Your task to perform on an android device: Clear all items from cart on ebay. Search for "macbook" on ebay, select the first entry, and add it to the cart. Image 0: 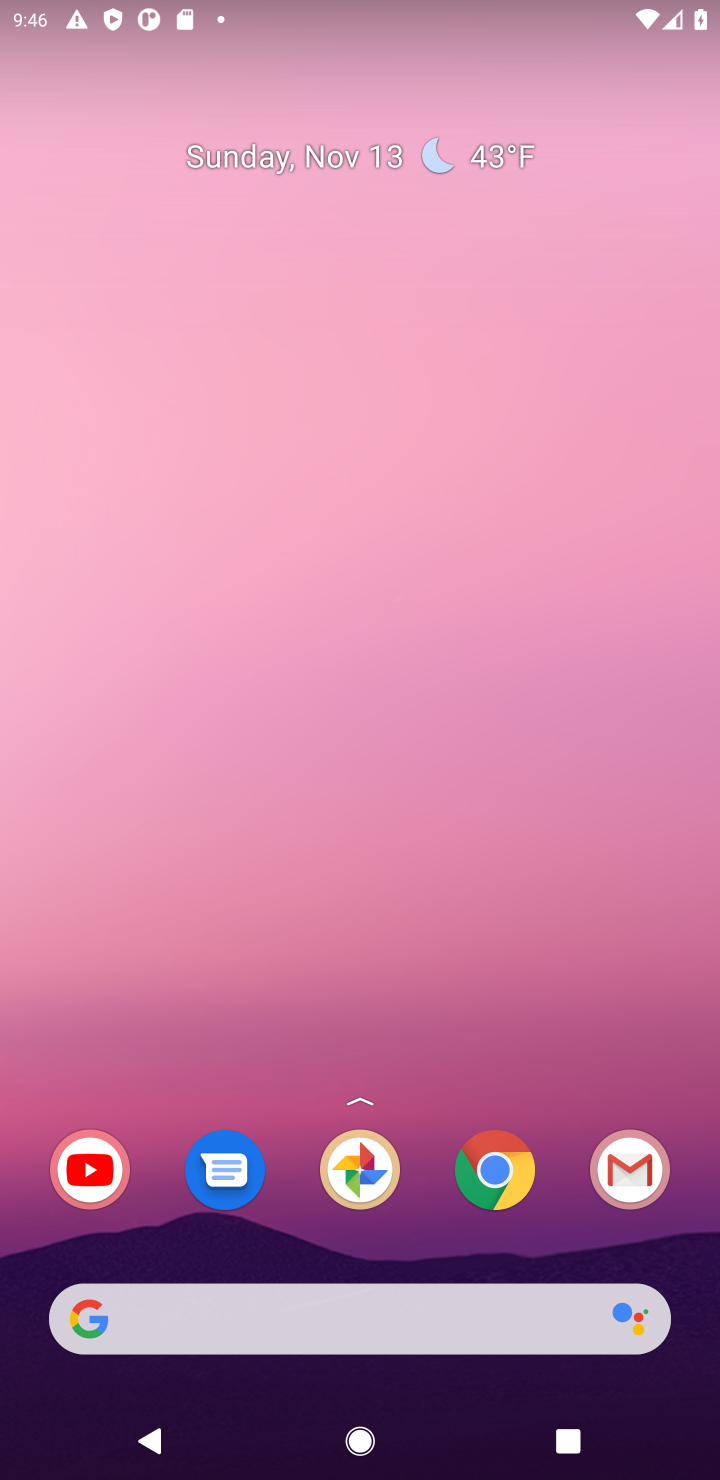
Step 0: drag from (213, 1053) to (282, 1)
Your task to perform on an android device: Clear all items from cart on ebay. Search for "macbook" on ebay, select the first entry, and add it to the cart. Image 1: 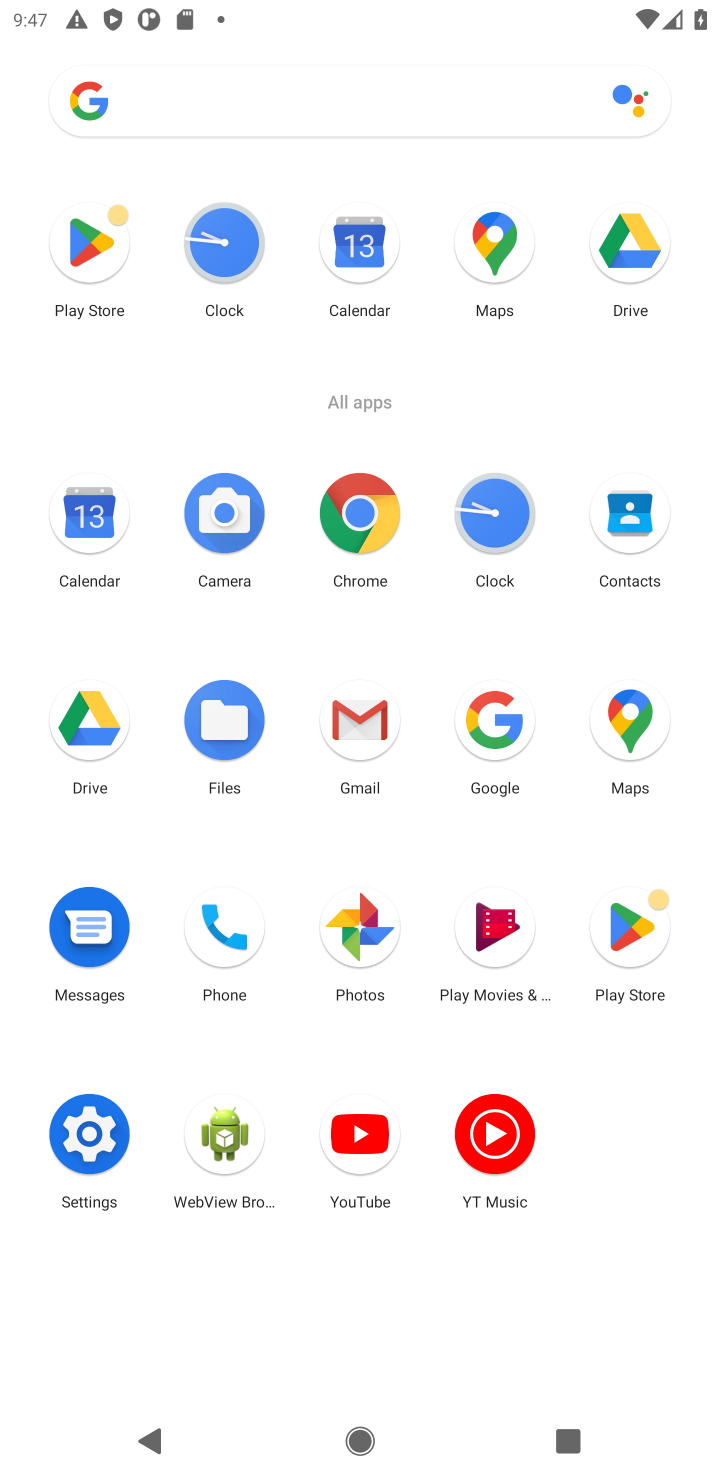
Step 1: click (345, 533)
Your task to perform on an android device: Clear all items from cart on ebay. Search for "macbook" on ebay, select the first entry, and add it to the cart. Image 2: 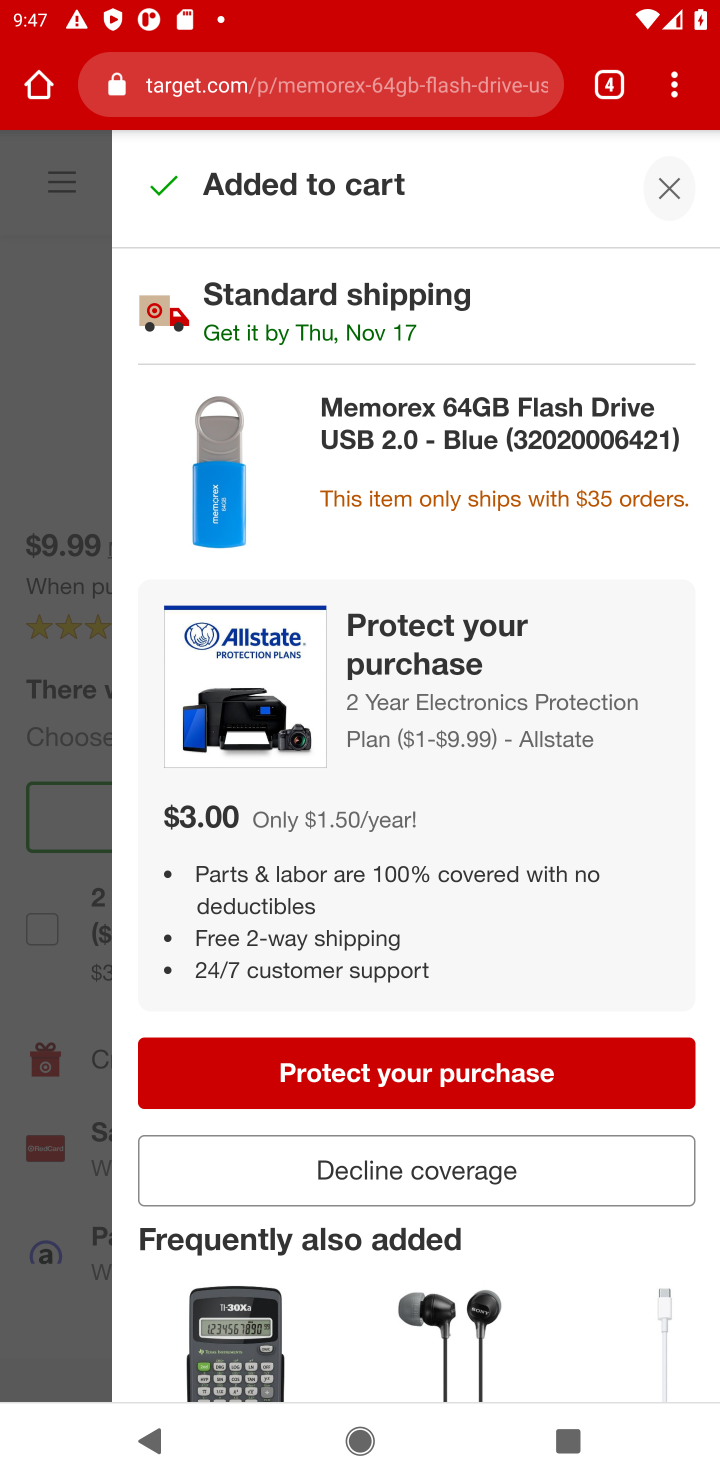
Step 2: press home button
Your task to perform on an android device: Clear all items from cart on ebay. Search for "macbook" on ebay, select the first entry, and add it to the cart. Image 3: 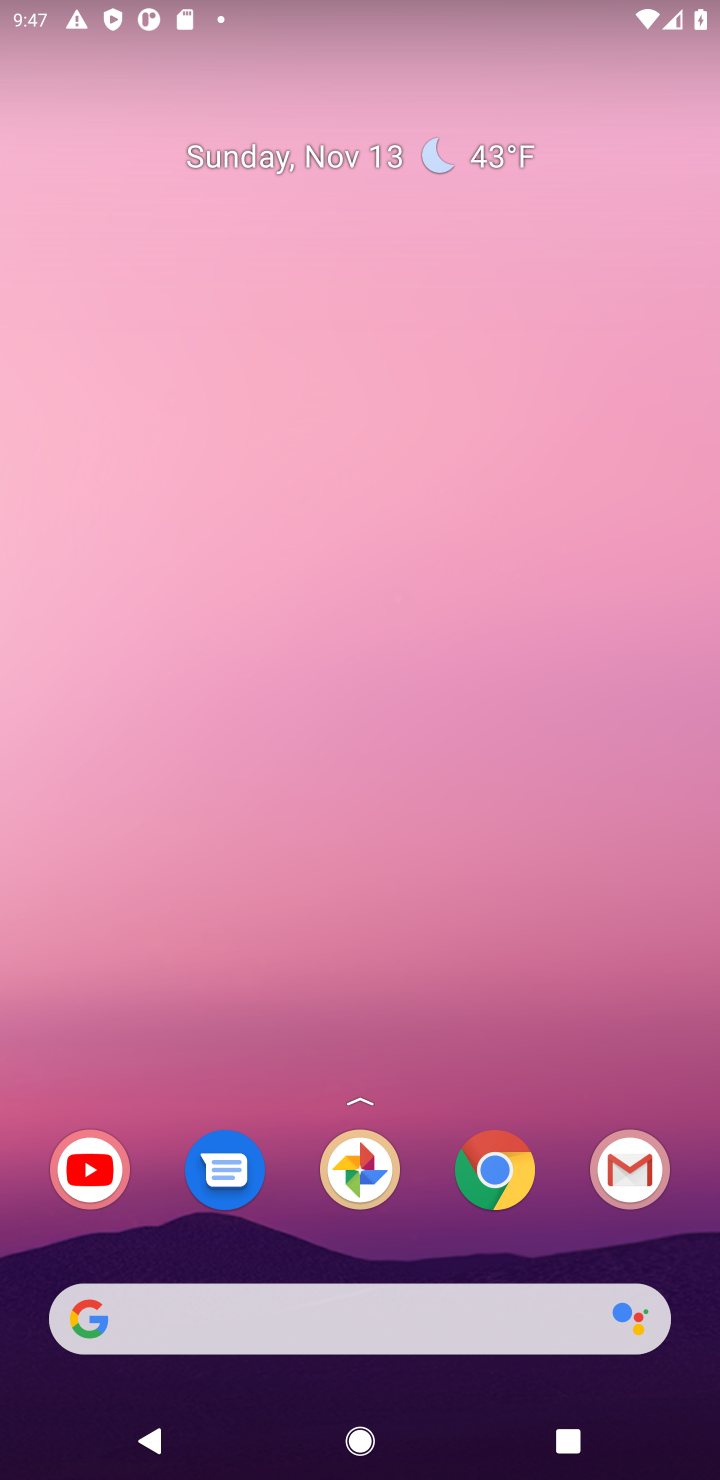
Step 3: drag from (378, 1133) to (254, 17)
Your task to perform on an android device: Clear all items from cart on ebay. Search for "macbook" on ebay, select the first entry, and add it to the cart. Image 4: 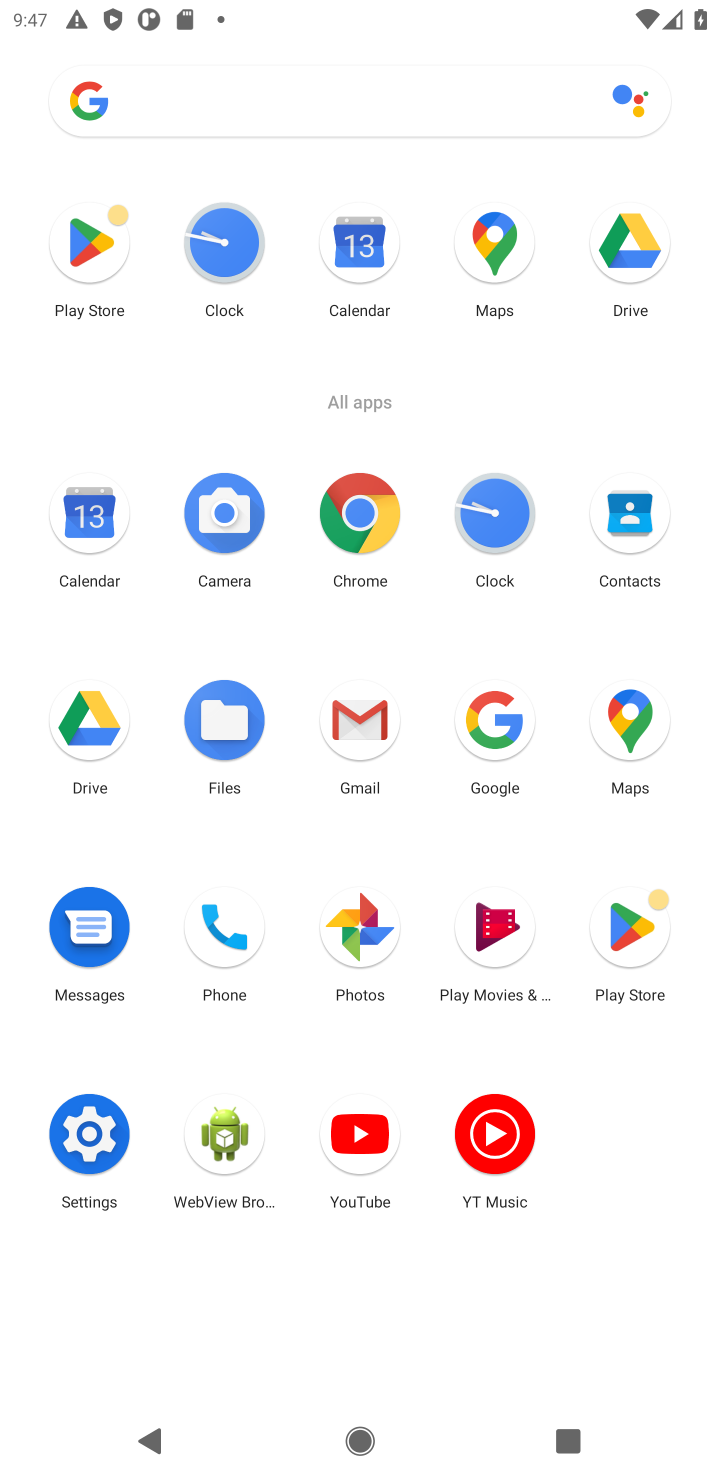
Step 4: click (351, 514)
Your task to perform on an android device: Clear all items from cart on ebay. Search for "macbook" on ebay, select the first entry, and add it to the cart. Image 5: 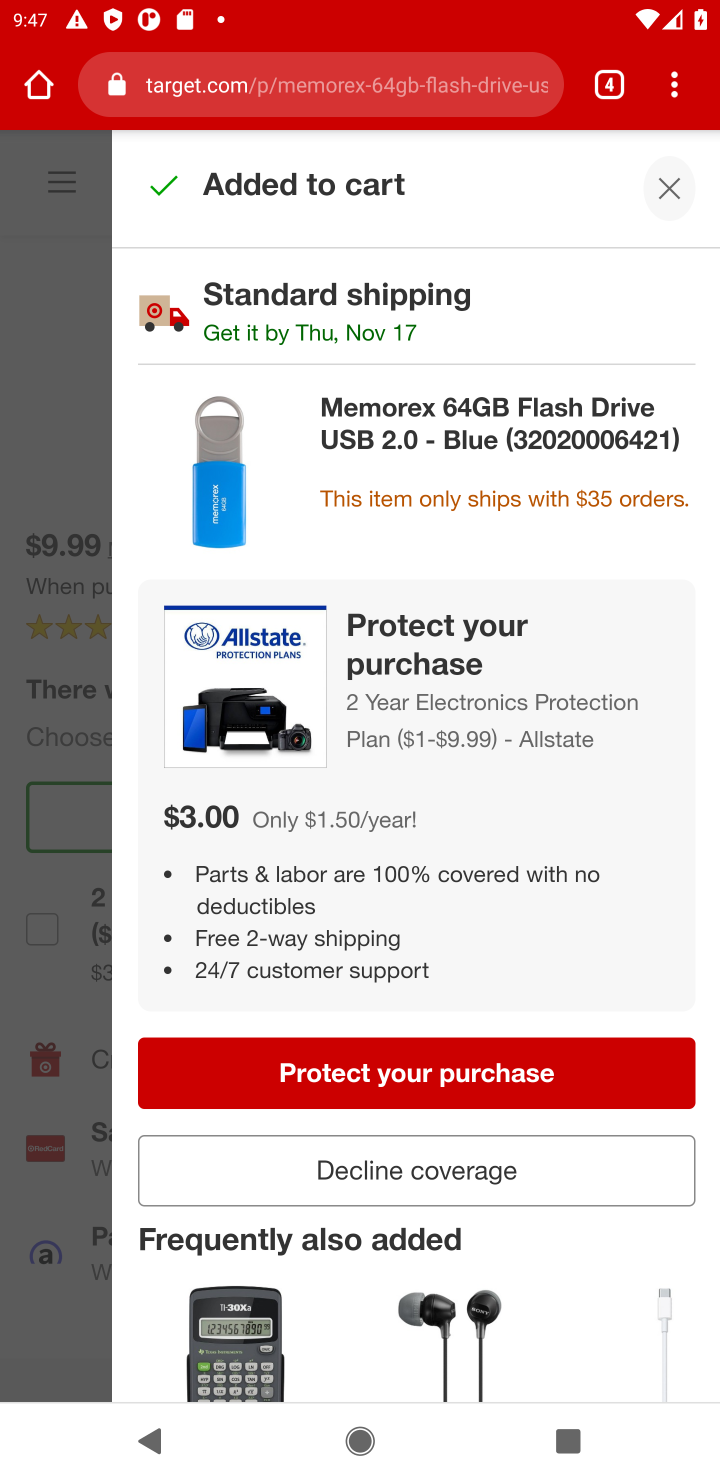
Step 5: click (332, 81)
Your task to perform on an android device: Clear all items from cart on ebay. Search for "macbook" on ebay, select the first entry, and add it to the cart. Image 6: 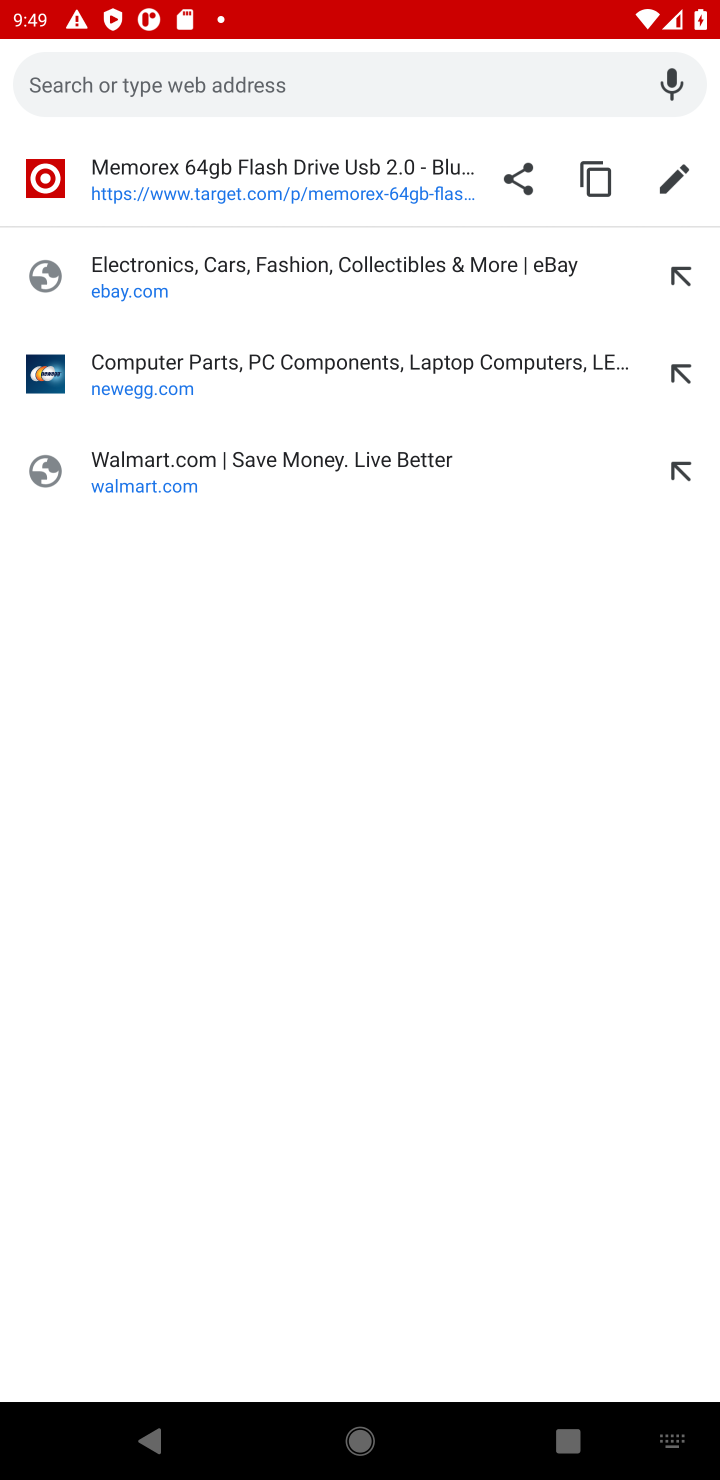
Step 6: type "ebay"
Your task to perform on an android device: Clear all items from cart on ebay. Search for "macbook" on ebay, select the first entry, and add it to the cart. Image 7: 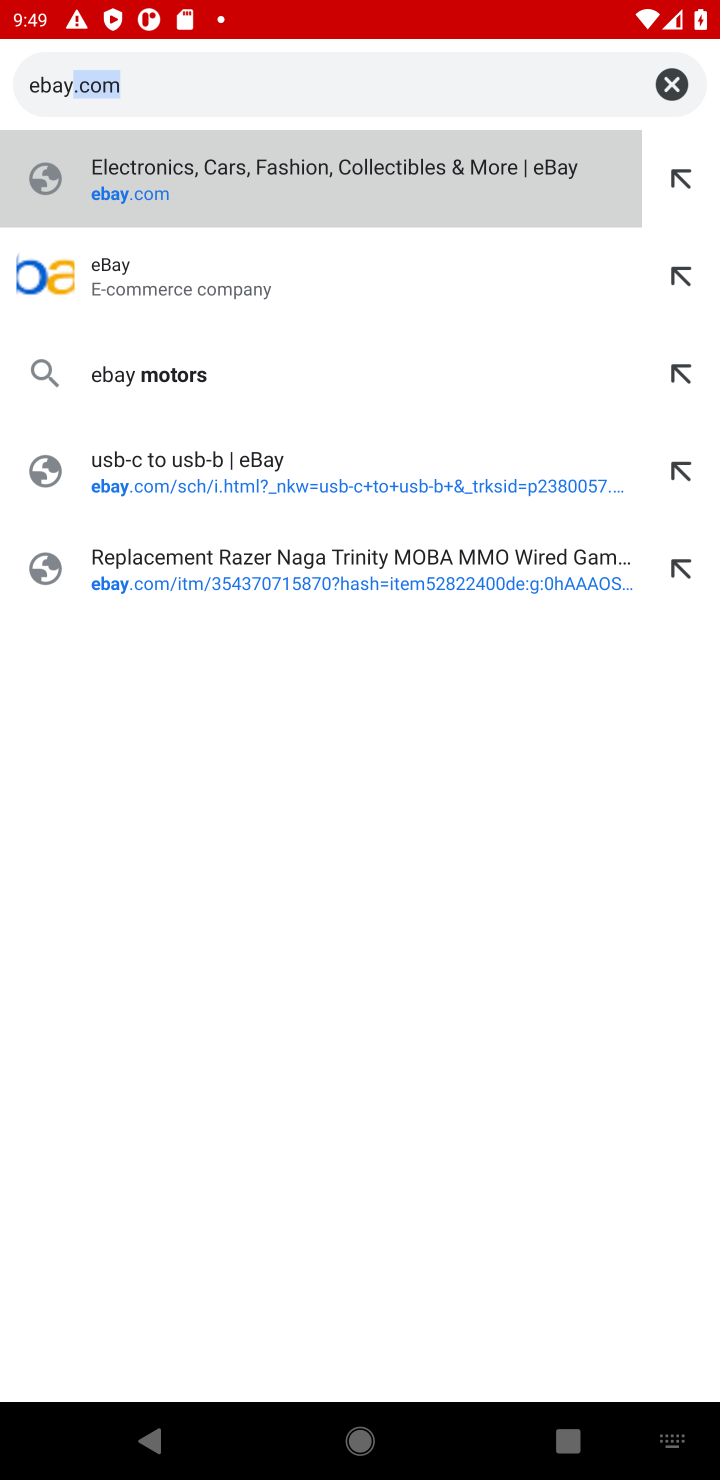
Step 7: press enter
Your task to perform on an android device: Clear all items from cart on ebay. Search for "macbook" on ebay, select the first entry, and add it to the cart. Image 8: 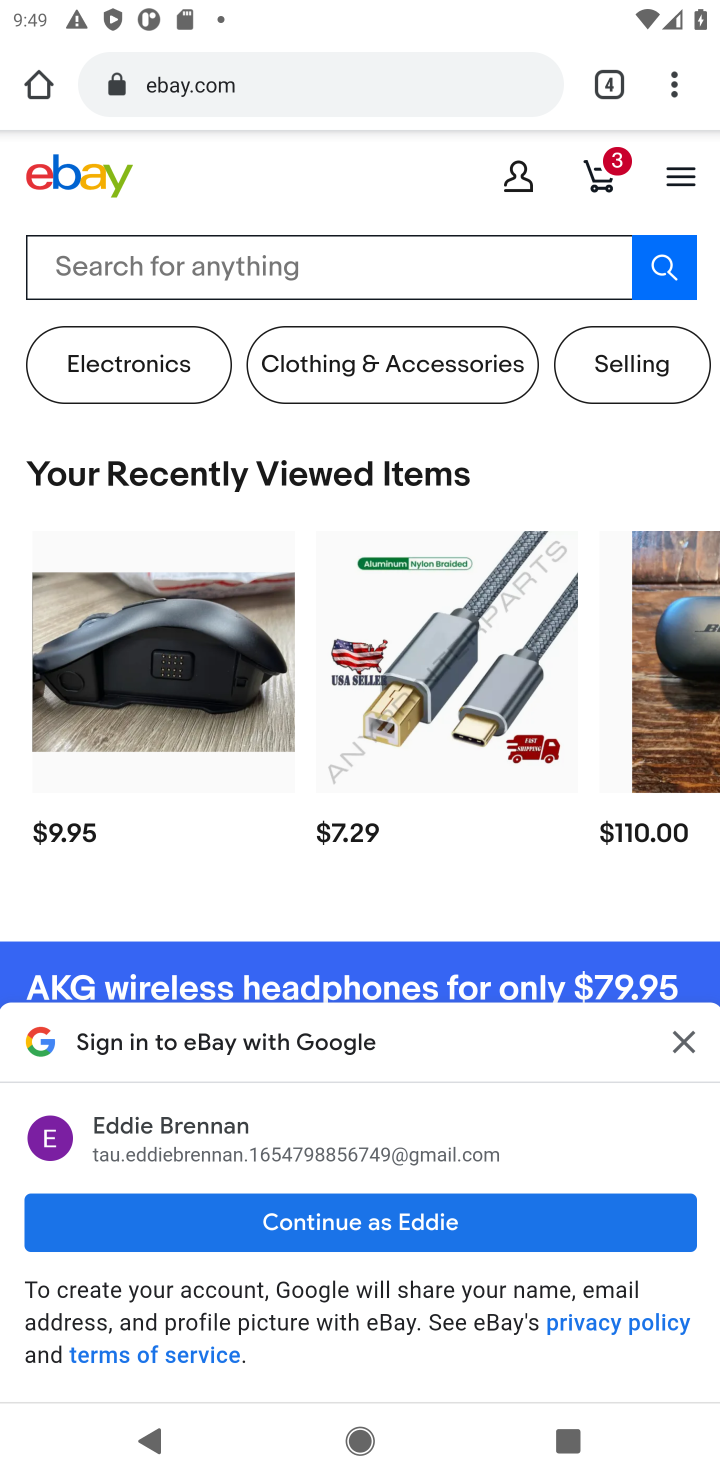
Step 8: click (173, 253)
Your task to perform on an android device: Clear all items from cart on ebay. Search for "macbook" on ebay, select the first entry, and add it to the cart. Image 9: 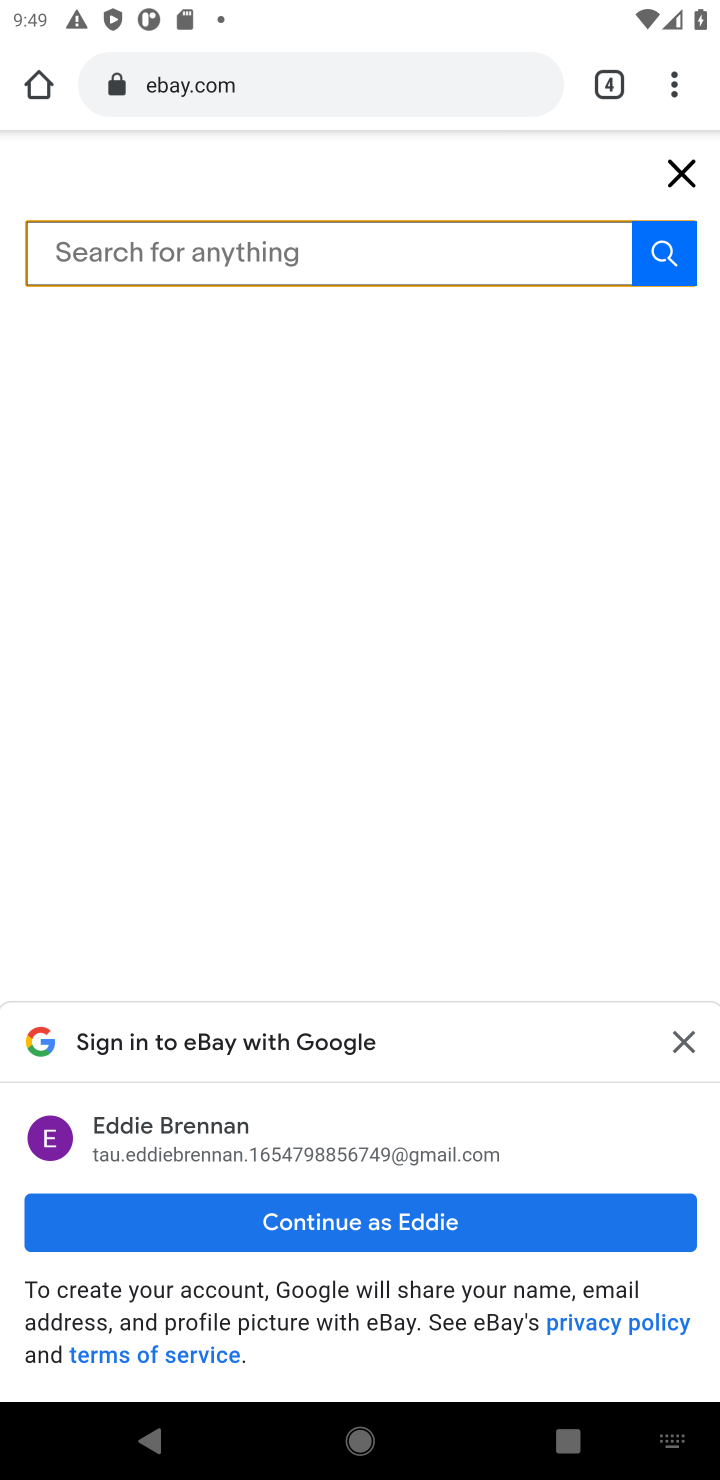
Step 9: press enter
Your task to perform on an android device: Clear all items from cart on ebay. Search for "macbook" on ebay, select the first entry, and add it to the cart. Image 10: 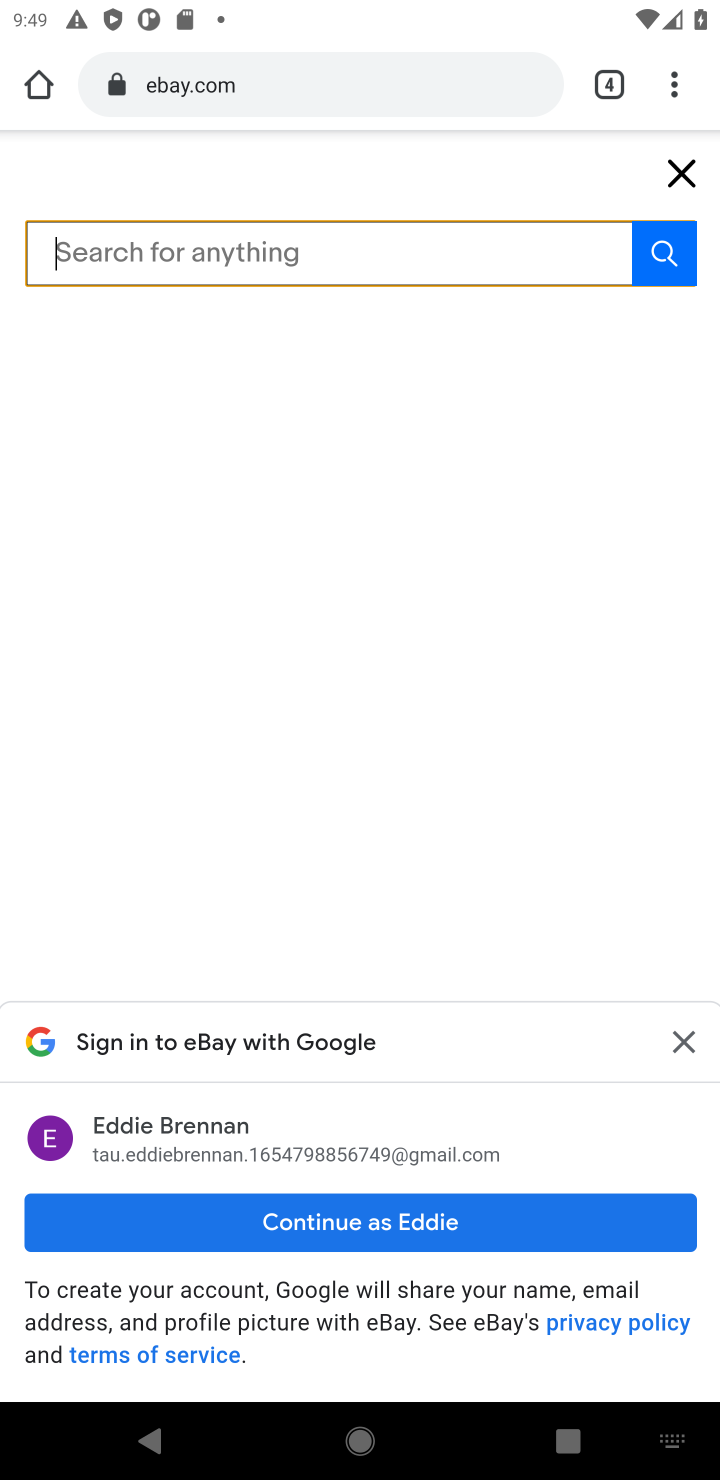
Step 10: type "macbook"
Your task to perform on an android device: Clear all items from cart on ebay. Search for "macbook" on ebay, select the first entry, and add it to the cart. Image 11: 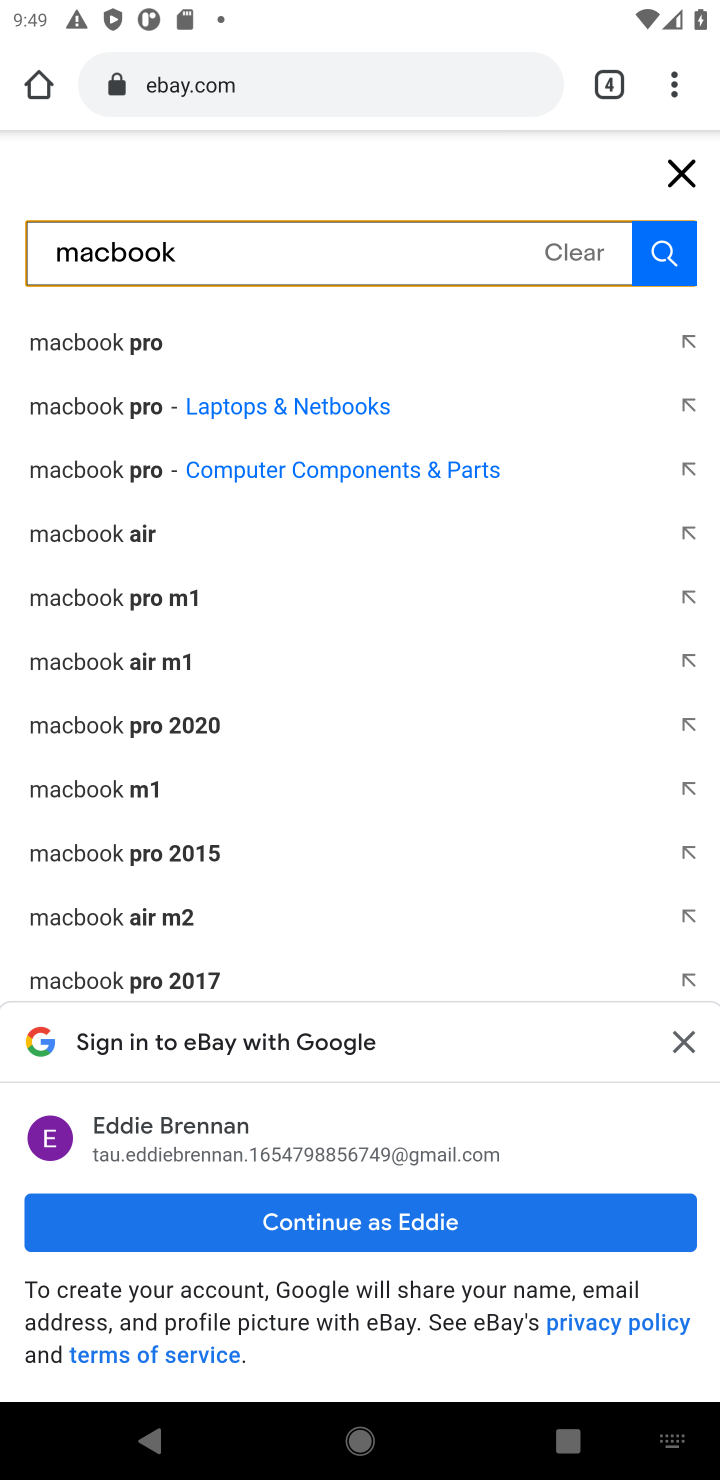
Step 11: press enter
Your task to perform on an android device: Clear all items from cart on ebay. Search for "macbook" on ebay, select the first entry, and add it to the cart. Image 12: 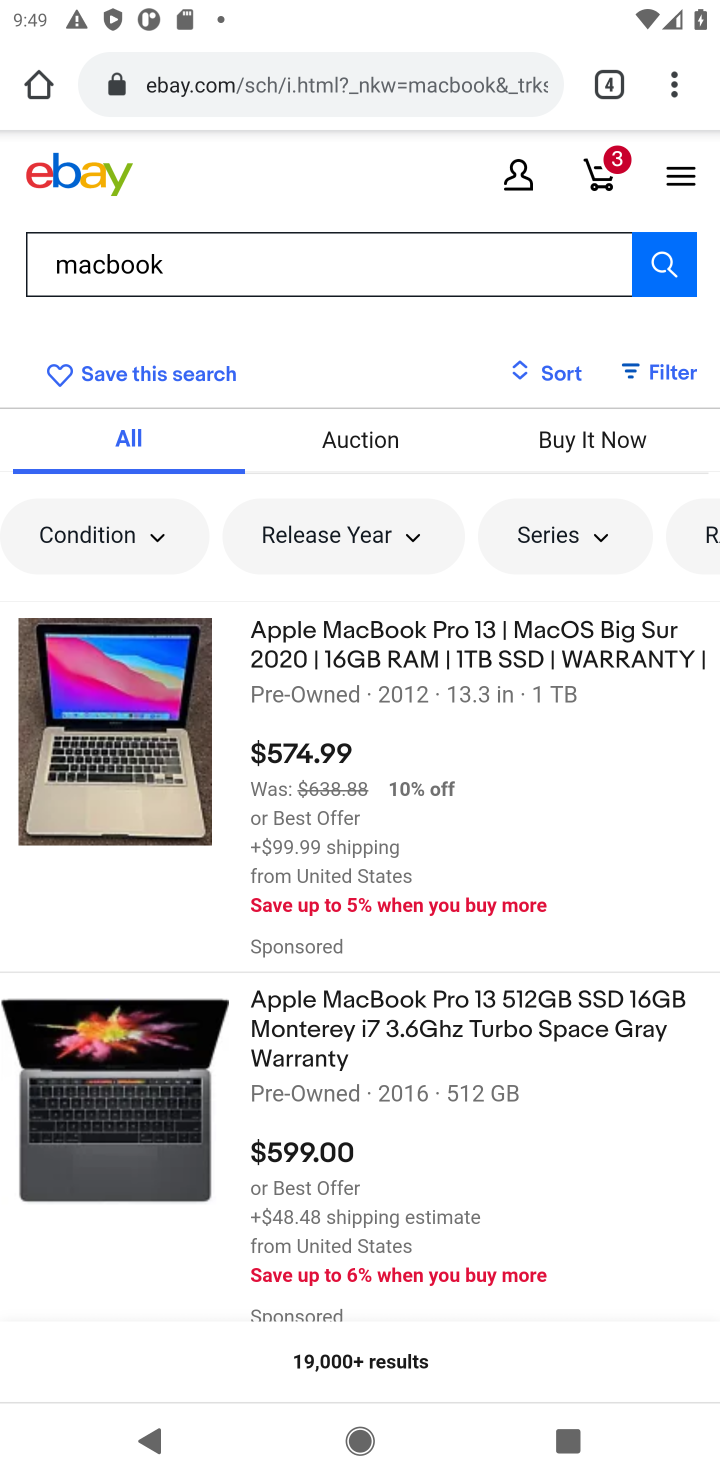
Step 12: click (297, 656)
Your task to perform on an android device: Clear all items from cart on ebay. Search for "macbook" on ebay, select the first entry, and add it to the cart. Image 13: 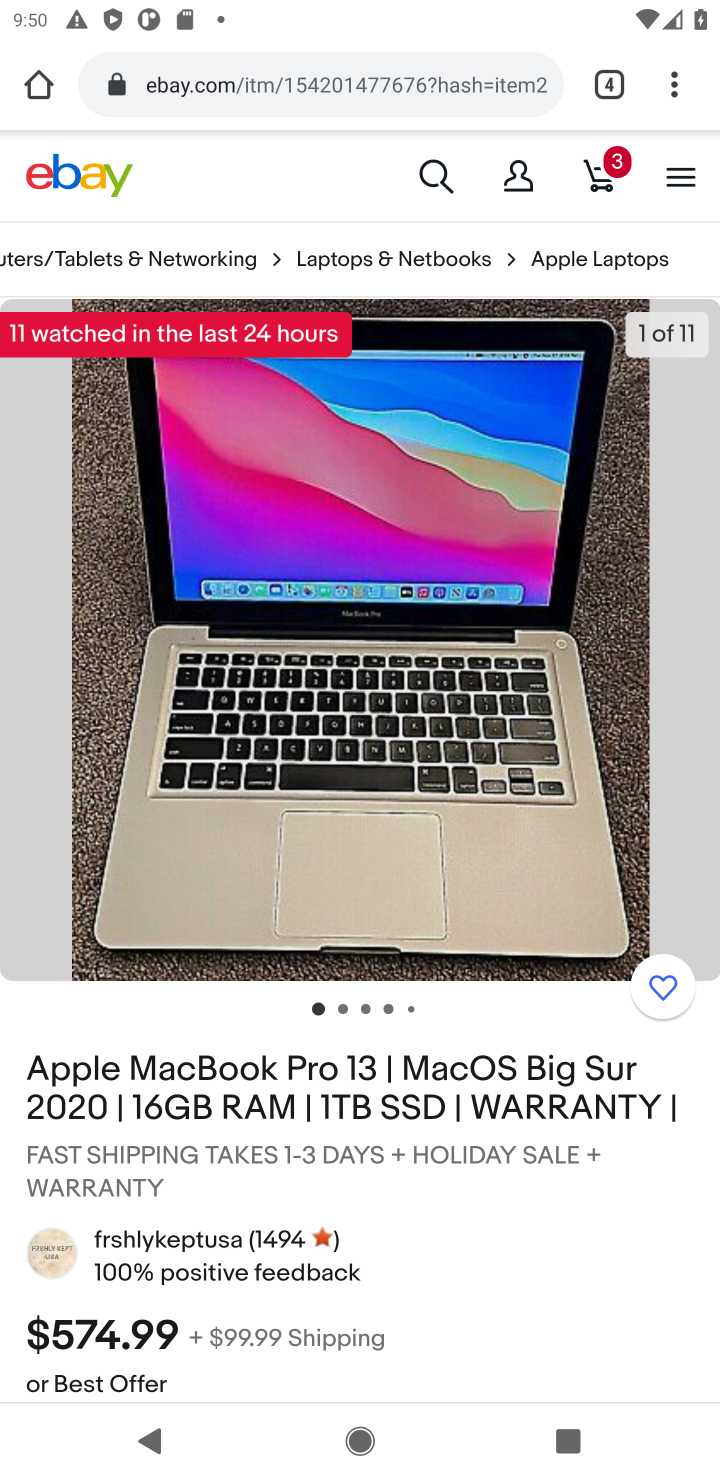
Step 13: drag from (235, 1258) to (142, 337)
Your task to perform on an android device: Clear all items from cart on ebay. Search for "macbook" on ebay, select the first entry, and add it to the cart. Image 14: 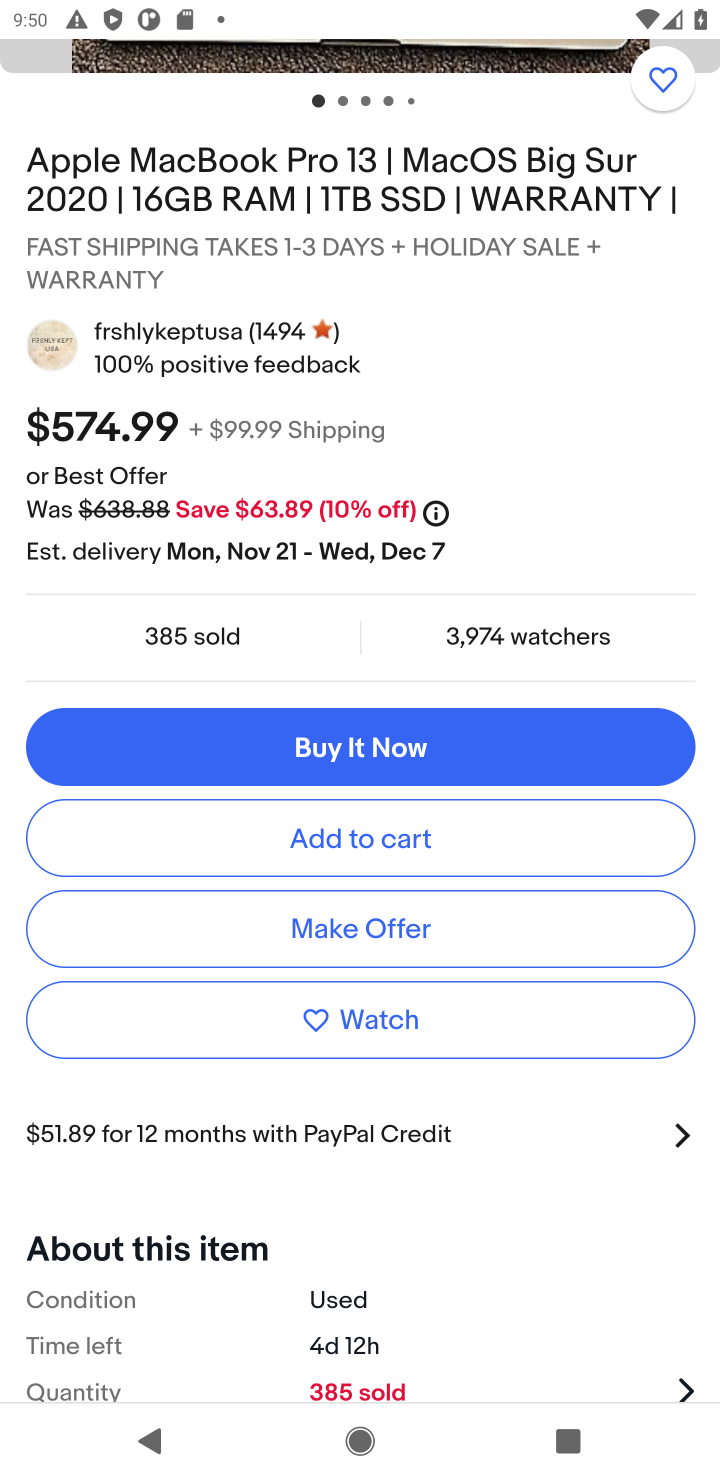
Step 14: click (336, 841)
Your task to perform on an android device: Clear all items from cart on ebay. Search for "macbook" on ebay, select the first entry, and add it to the cart. Image 15: 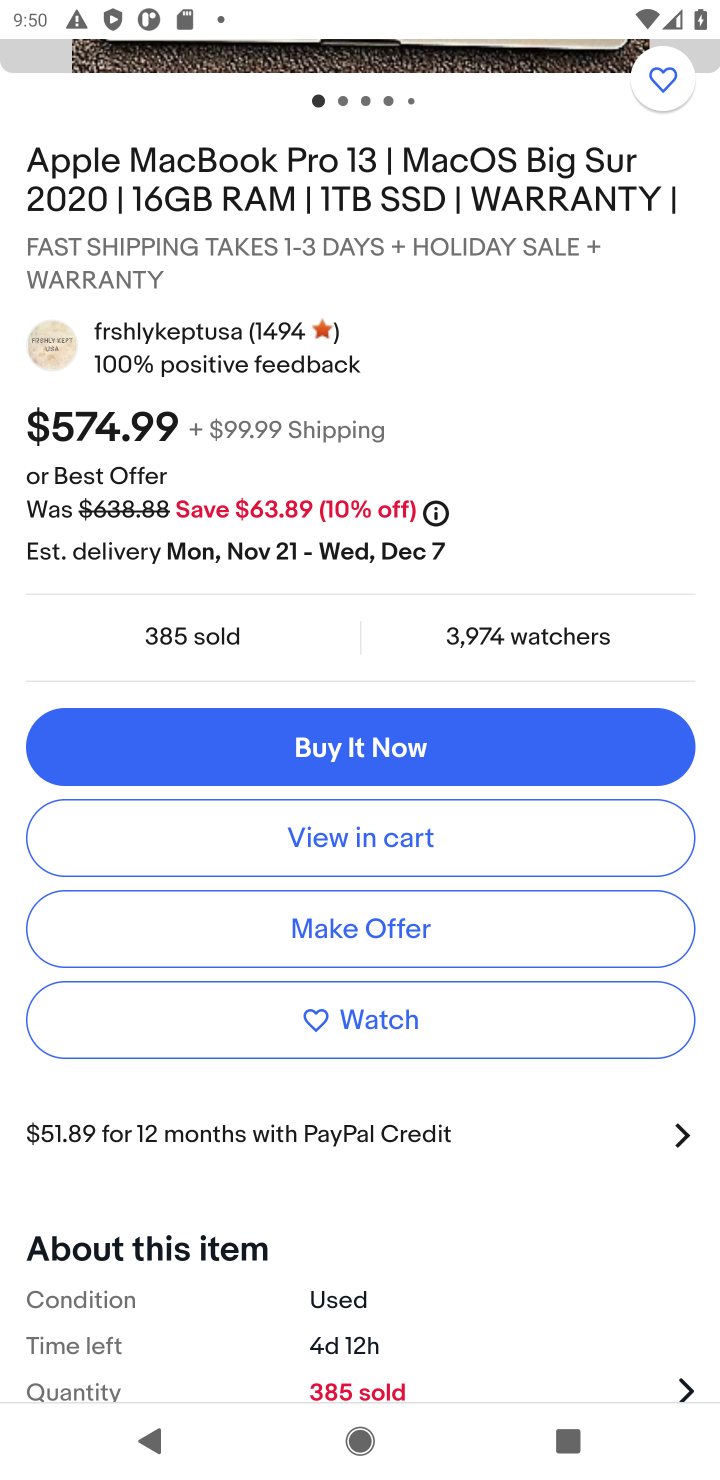
Step 15: task complete